Your task to perform on an android device: see creations saved in the google photos Image 0: 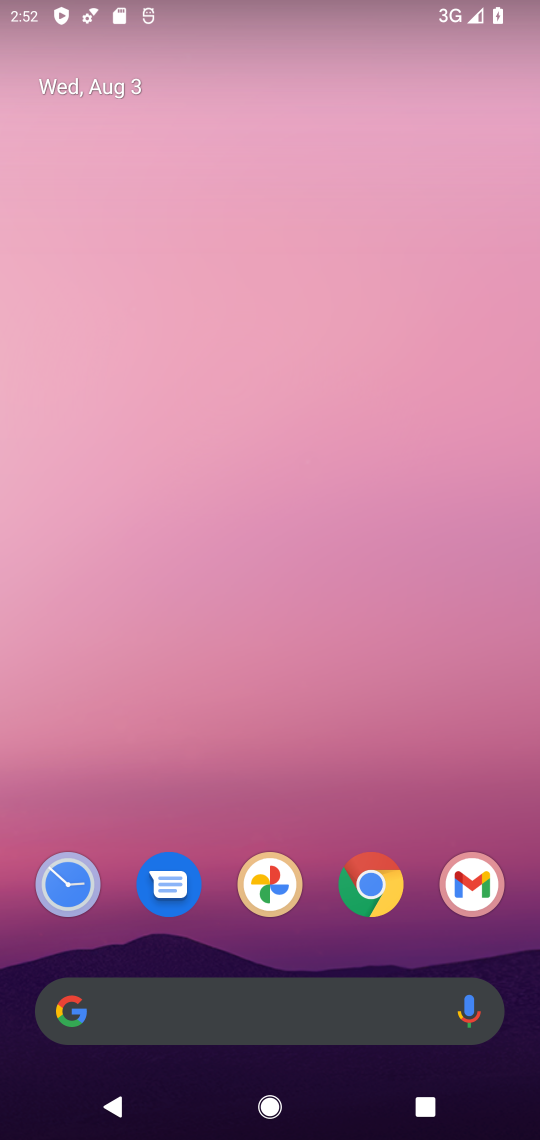
Step 0: click (287, 883)
Your task to perform on an android device: see creations saved in the google photos Image 1: 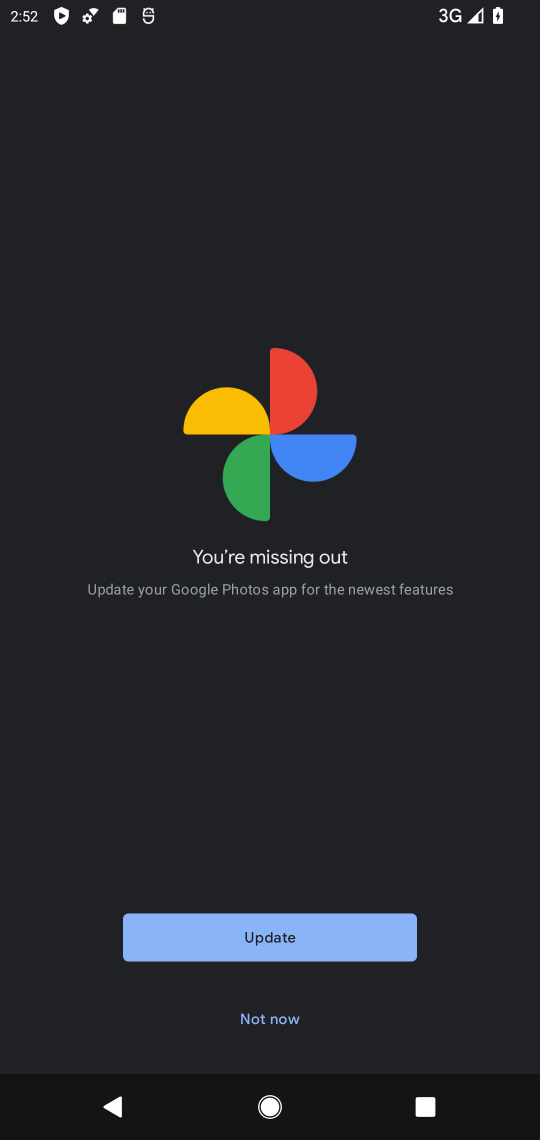
Step 1: click (262, 939)
Your task to perform on an android device: see creations saved in the google photos Image 2: 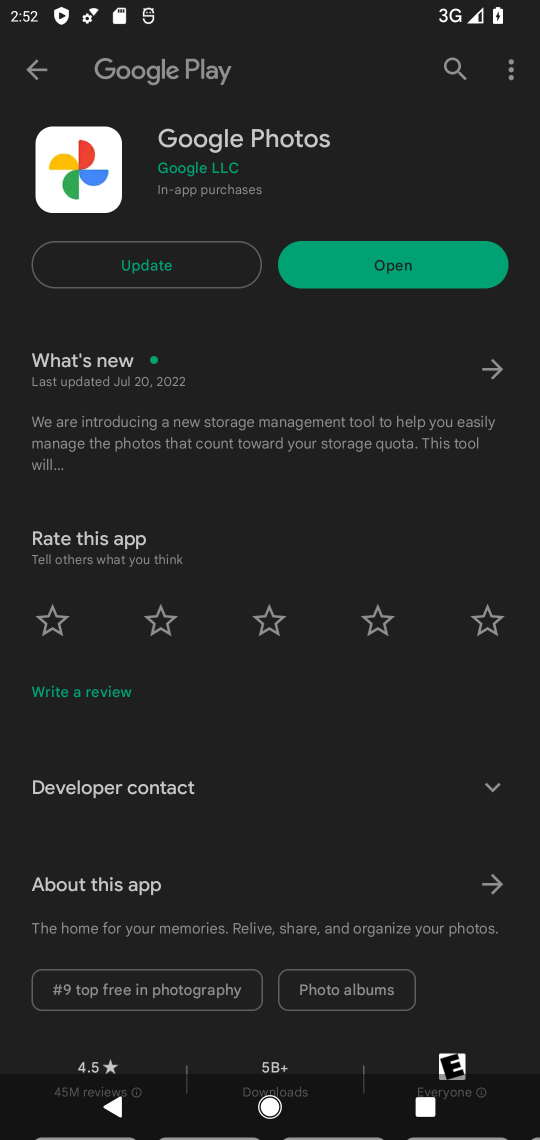
Step 2: click (212, 274)
Your task to perform on an android device: see creations saved in the google photos Image 3: 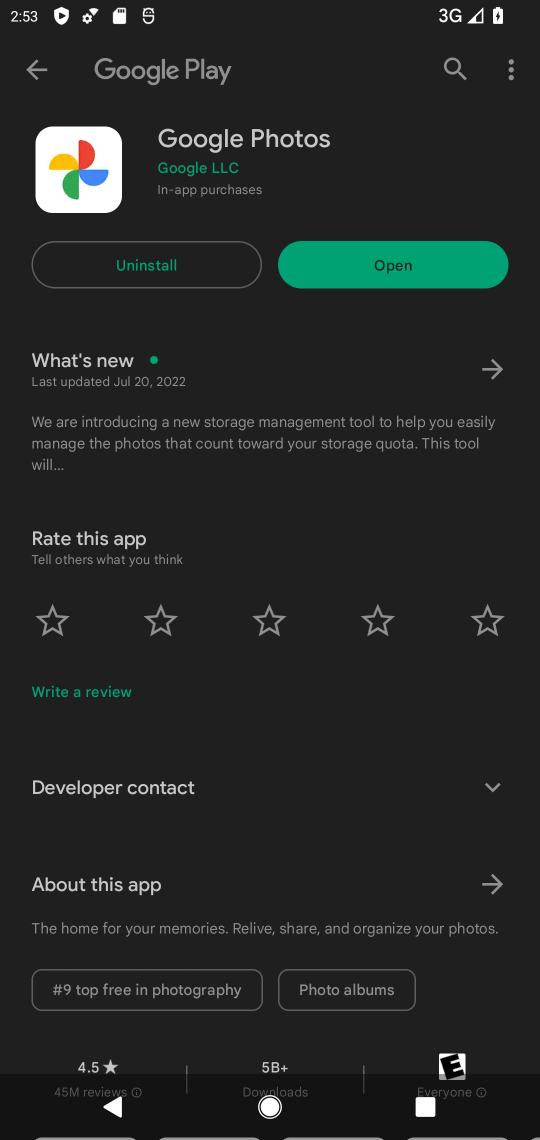
Step 3: click (337, 276)
Your task to perform on an android device: see creations saved in the google photos Image 4: 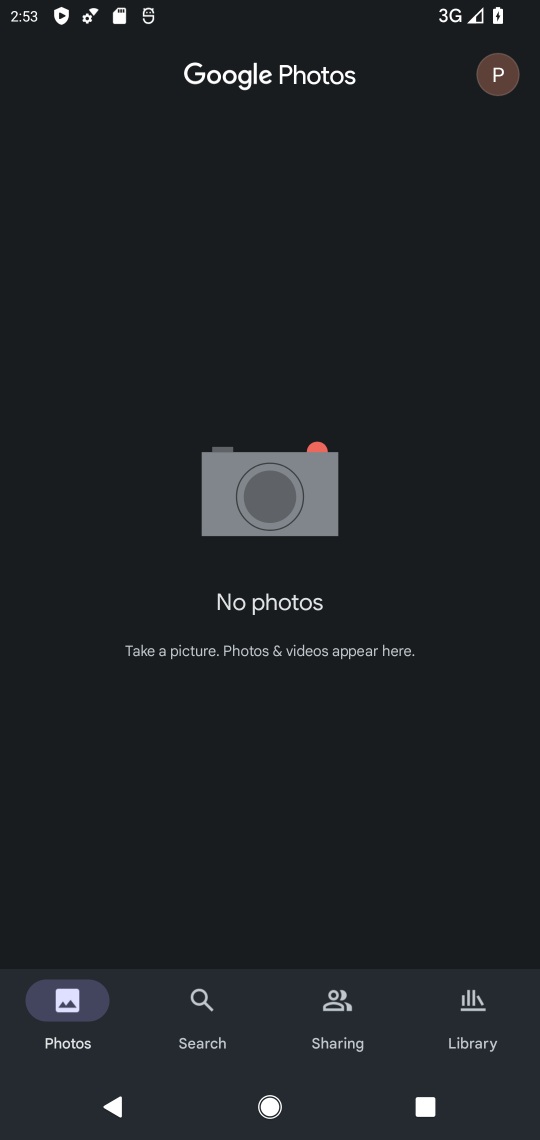
Step 4: click (443, 1019)
Your task to perform on an android device: see creations saved in the google photos Image 5: 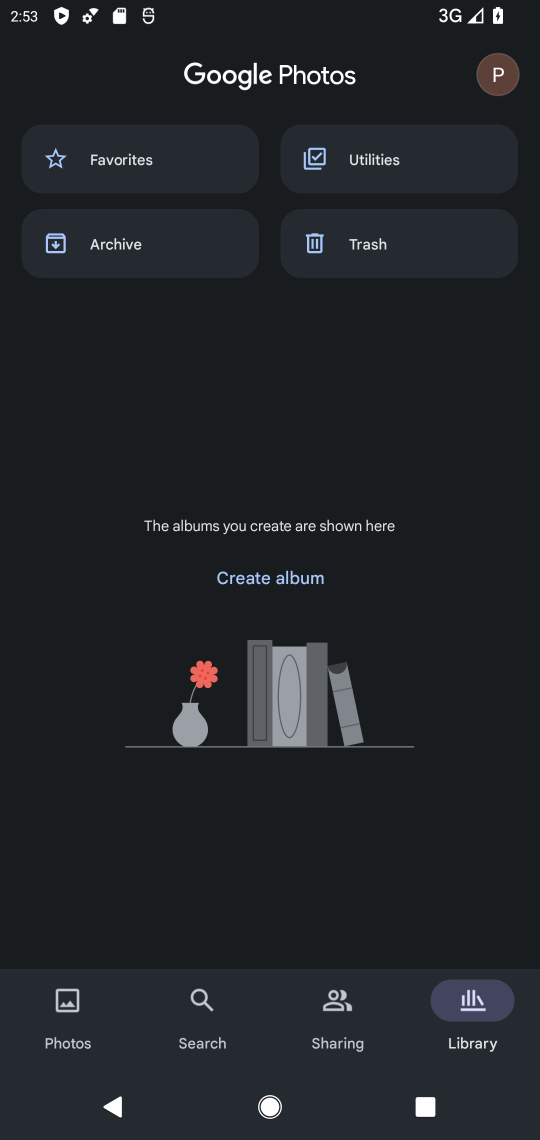
Step 5: click (190, 246)
Your task to perform on an android device: see creations saved in the google photos Image 6: 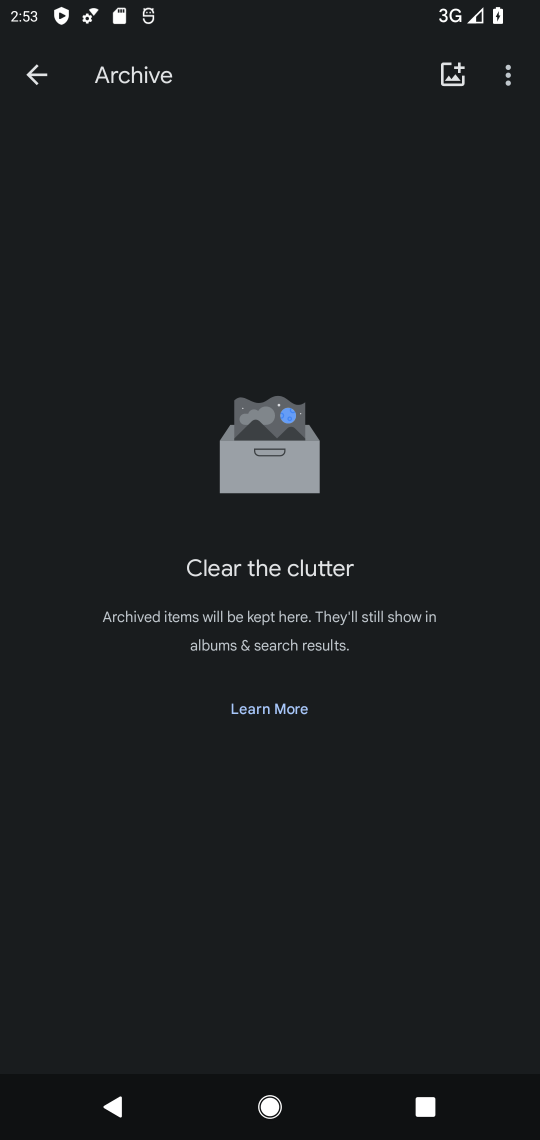
Step 6: task complete